Your task to perform on an android device: check data usage Image 0: 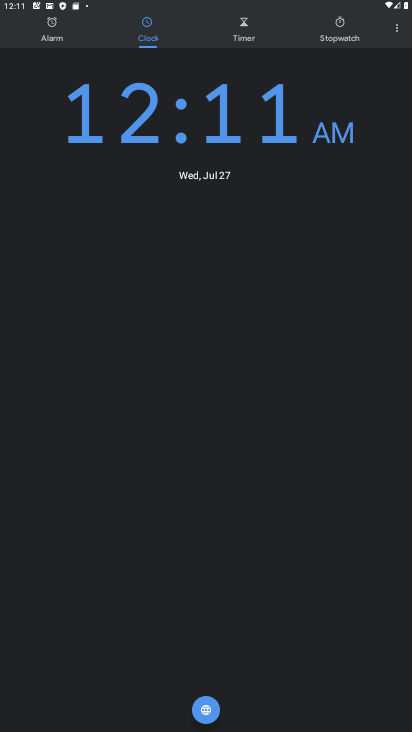
Step 0: press home button
Your task to perform on an android device: check data usage Image 1: 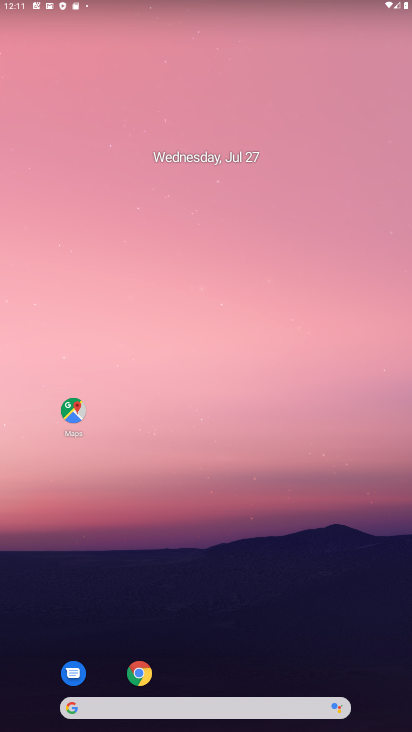
Step 1: drag from (243, 649) to (233, 160)
Your task to perform on an android device: check data usage Image 2: 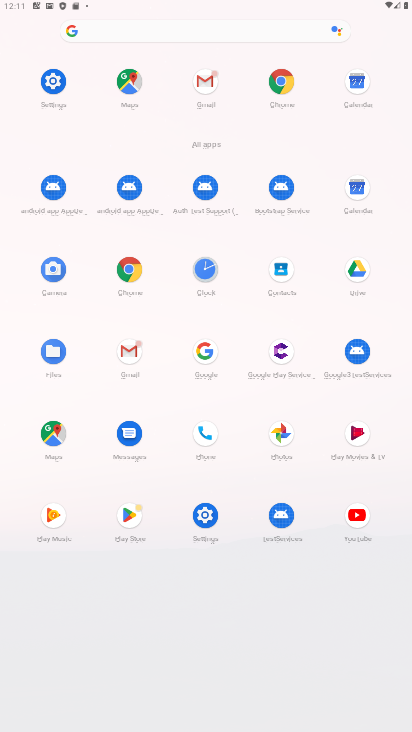
Step 2: click (47, 82)
Your task to perform on an android device: check data usage Image 3: 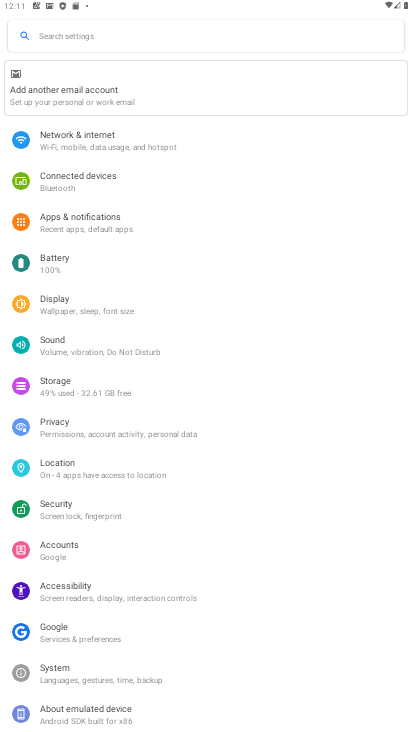
Step 3: click (104, 135)
Your task to perform on an android device: check data usage Image 4: 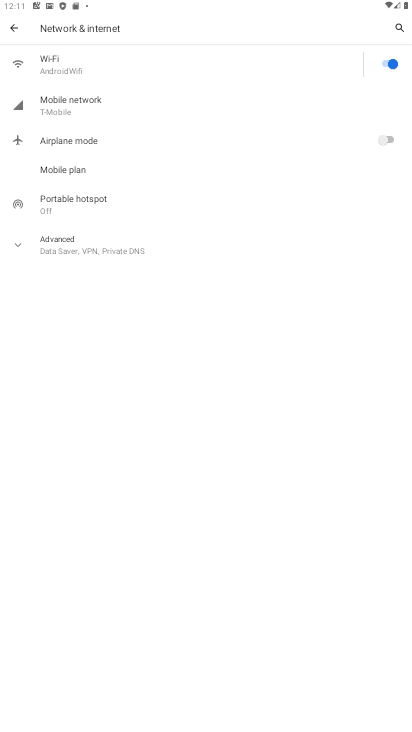
Step 4: click (73, 104)
Your task to perform on an android device: check data usage Image 5: 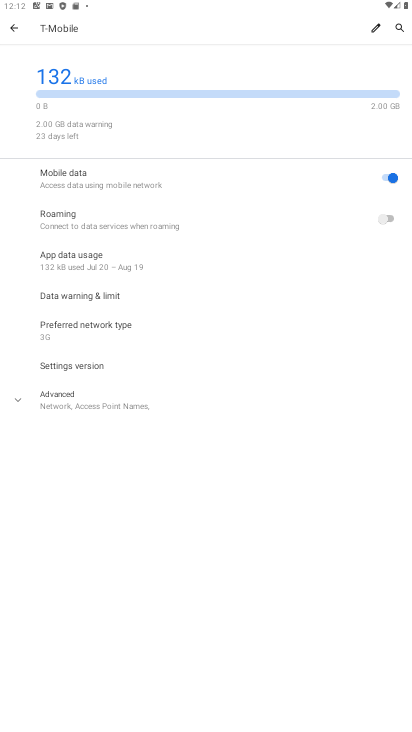
Step 5: task complete